Your task to perform on an android device: open app "WhatsApp Messenger" (install if not already installed) and go to login screen Image 0: 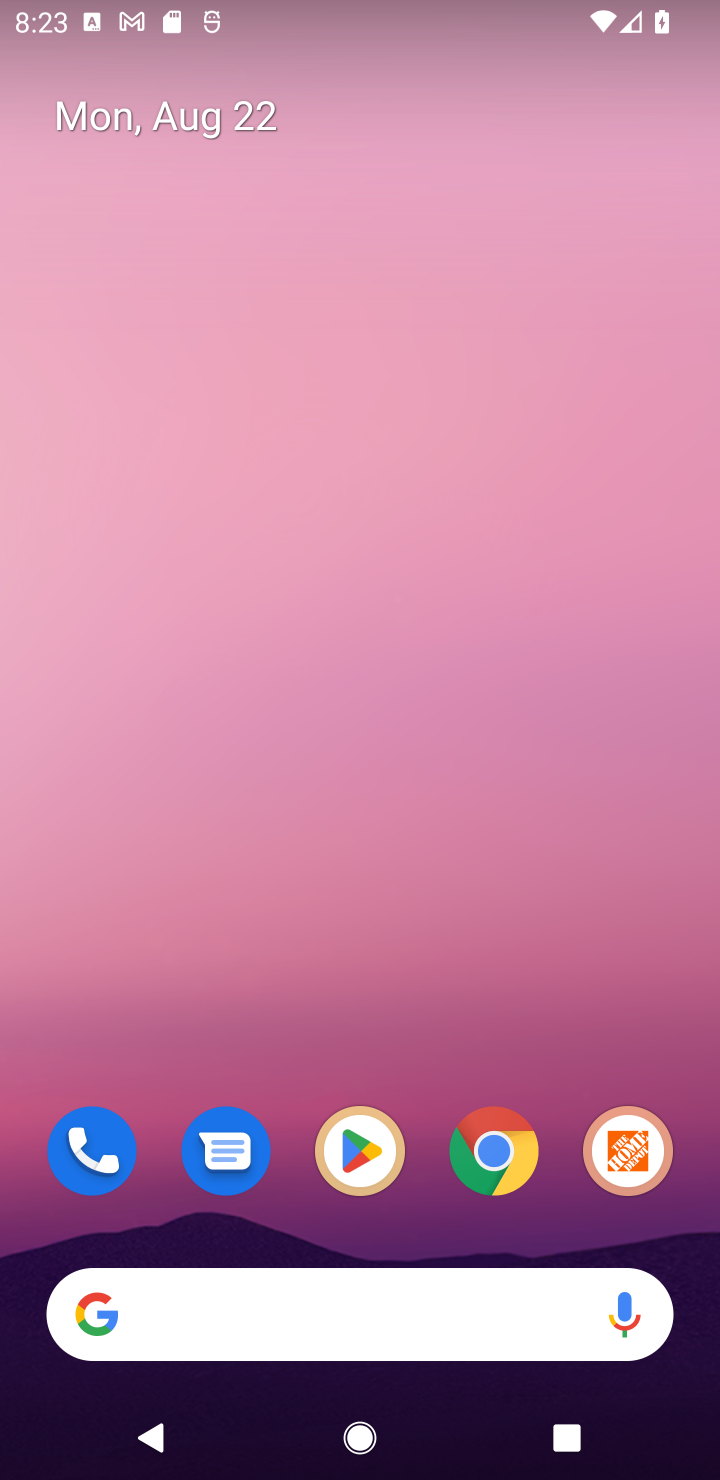
Step 0: click (366, 1161)
Your task to perform on an android device: open app "WhatsApp Messenger" (install if not already installed) and go to login screen Image 1: 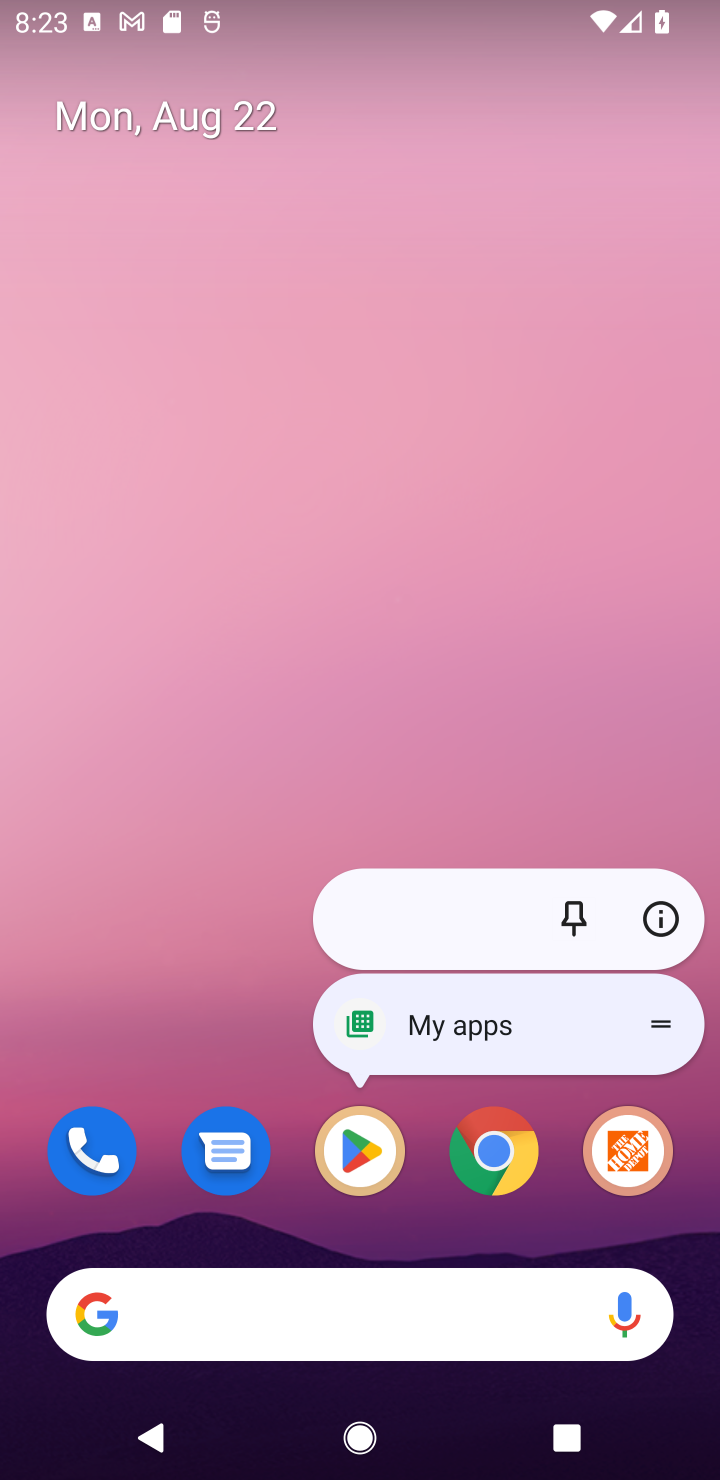
Step 1: click (370, 1157)
Your task to perform on an android device: open app "WhatsApp Messenger" (install if not already installed) and go to login screen Image 2: 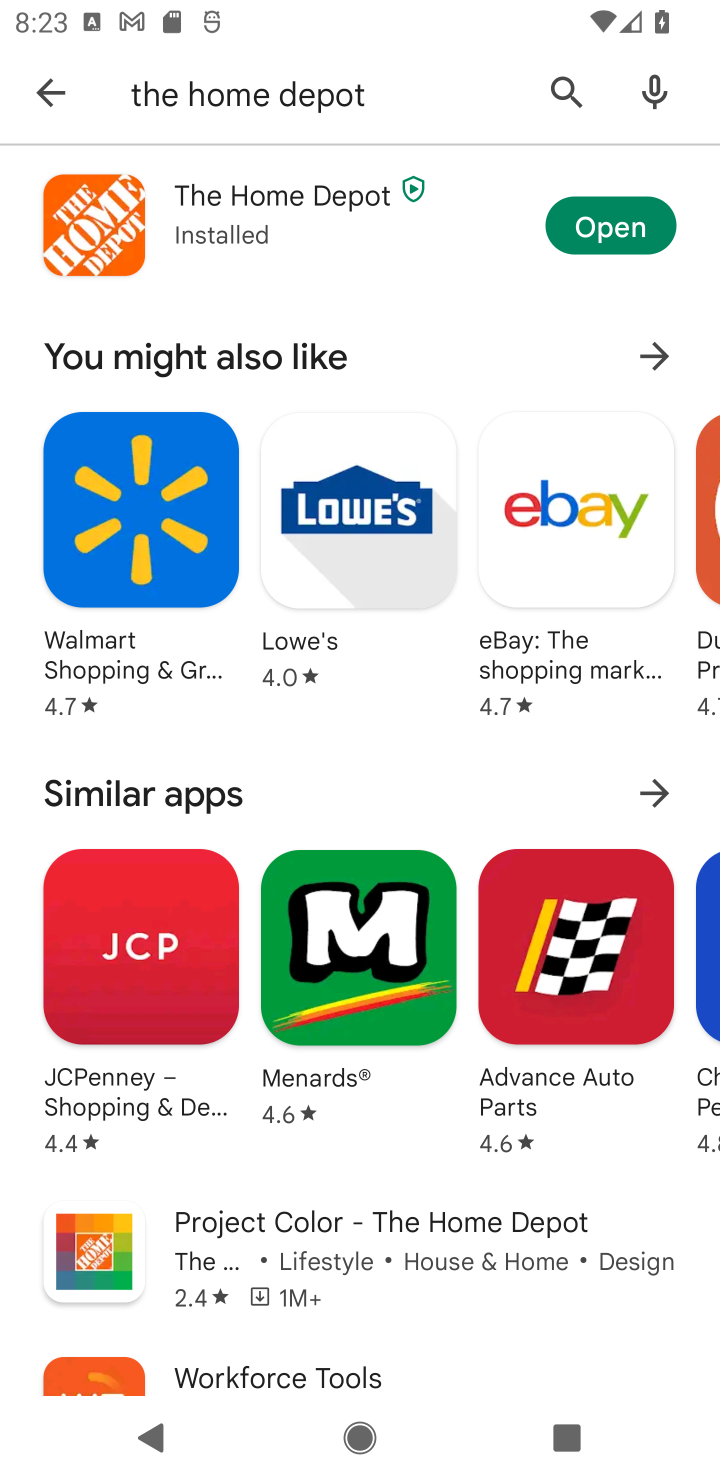
Step 2: click (551, 83)
Your task to perform on an android device: open app "WhatsApp Messenger" (install if not already installed) and go to login screen Image 3: 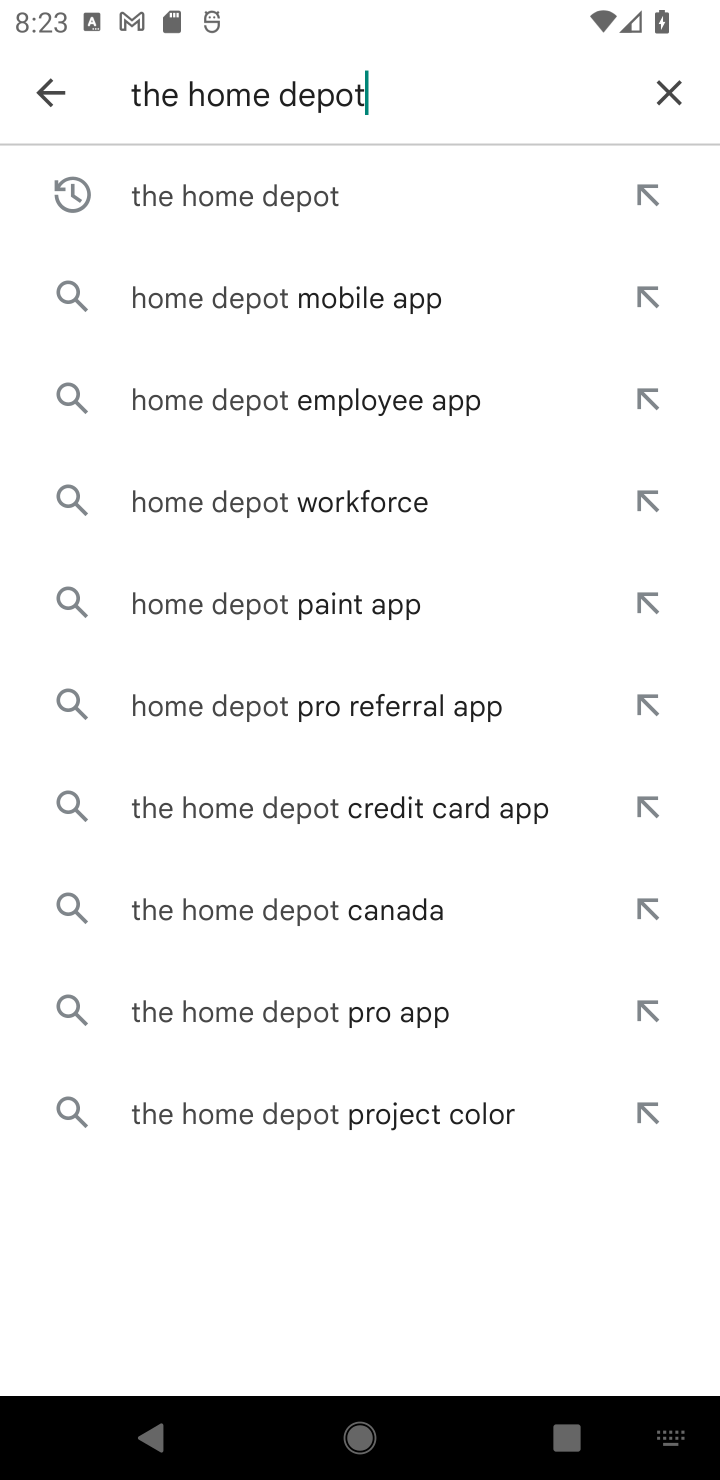
Step 3: click (659, 104)
Your task to perform on an android device: open app "WhatsApp Messenger" (install if not already installed) and go to login screen Image 4: 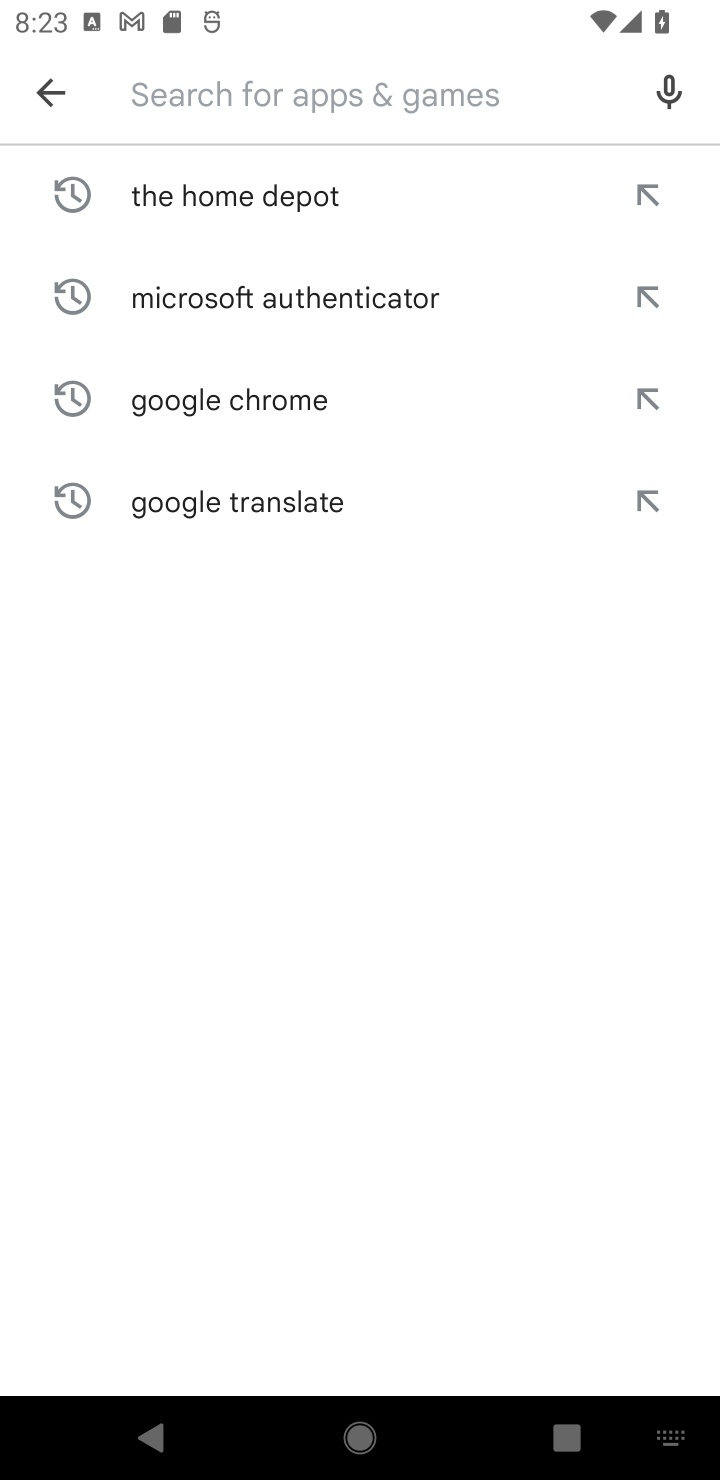
Step 4: type "WhatsApp Messenger"
Your task to perform on an android device: open app "WhatsApp Messenger" (install if not already installed) and go to login screen Image 5: 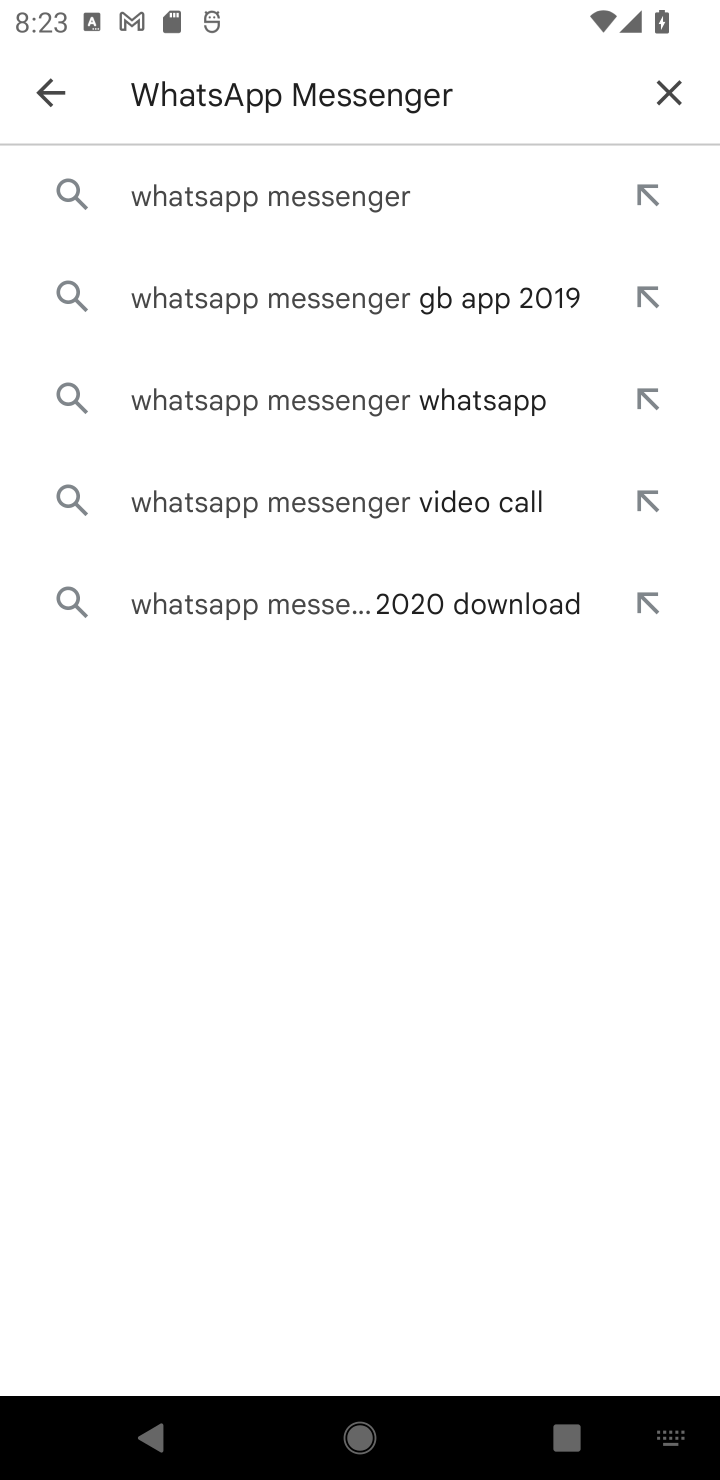
Step 5: click (318, 192)
Your task to perform on an android device: open app "WhatsApp Messenger" (install if not already installed) and go to login screen Image 6: 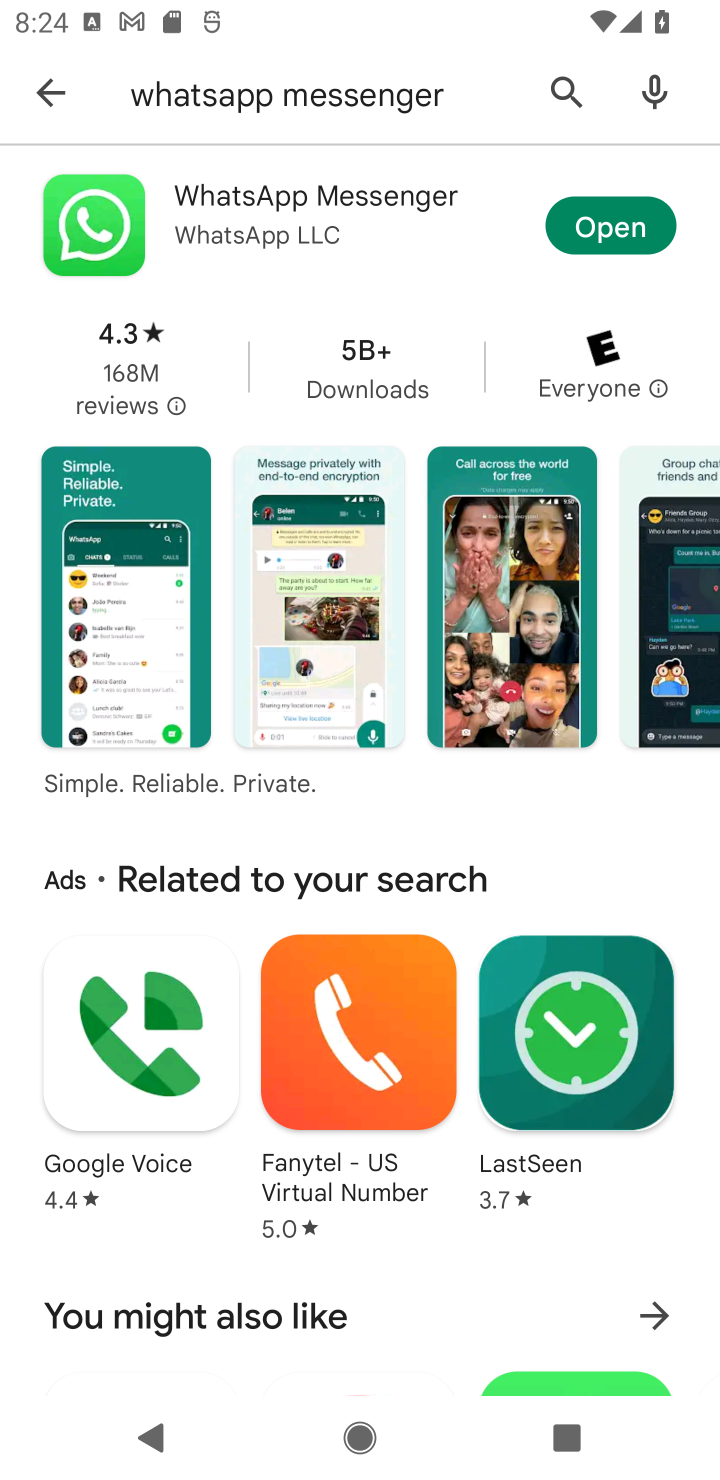
Step 6: click (610, 230)
Your task to perform on an android device: open app "WhatsApp Messenger" (install if not already installed) and go to login screen Image 7: 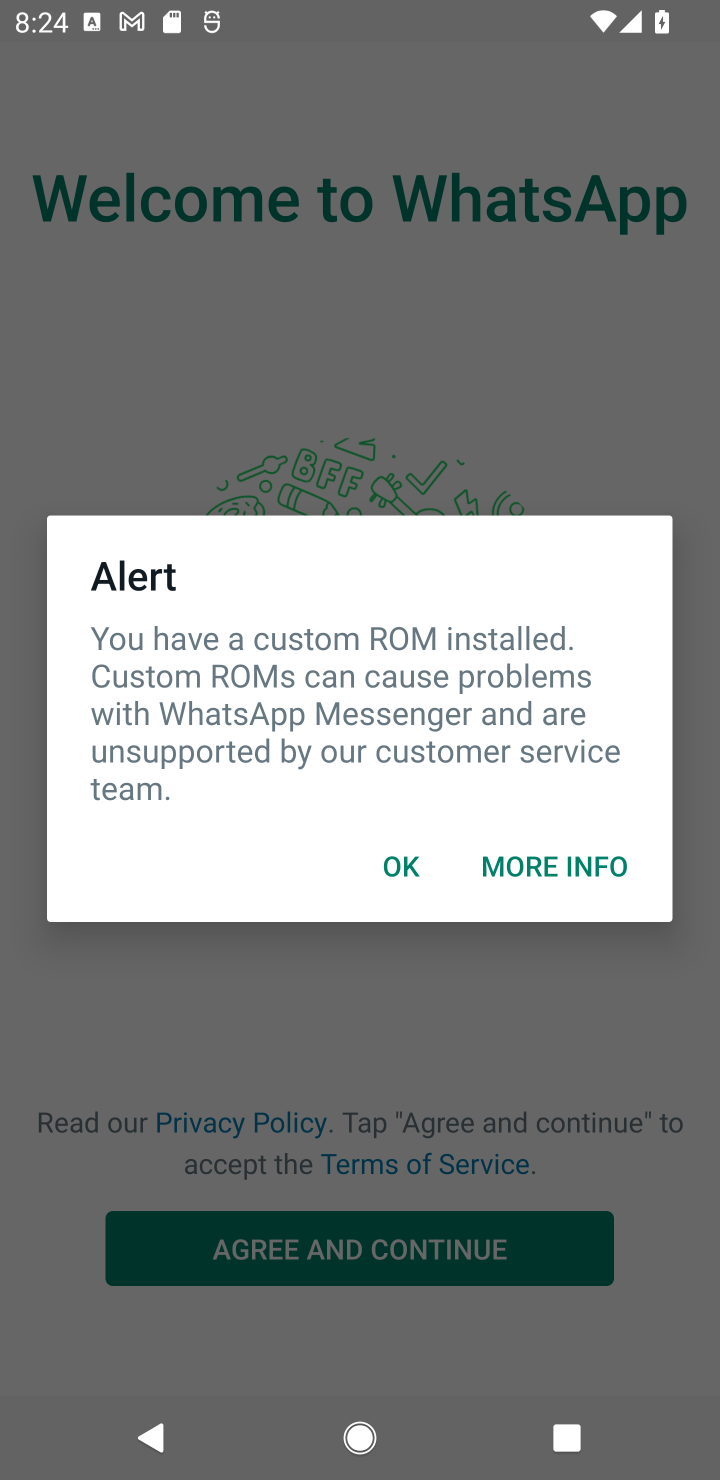
Step 7: click (403, 858)
Your task to perform on an android device: open app "WhatsApp Messenger" (install if not already installed) and go to login screen Image 8: 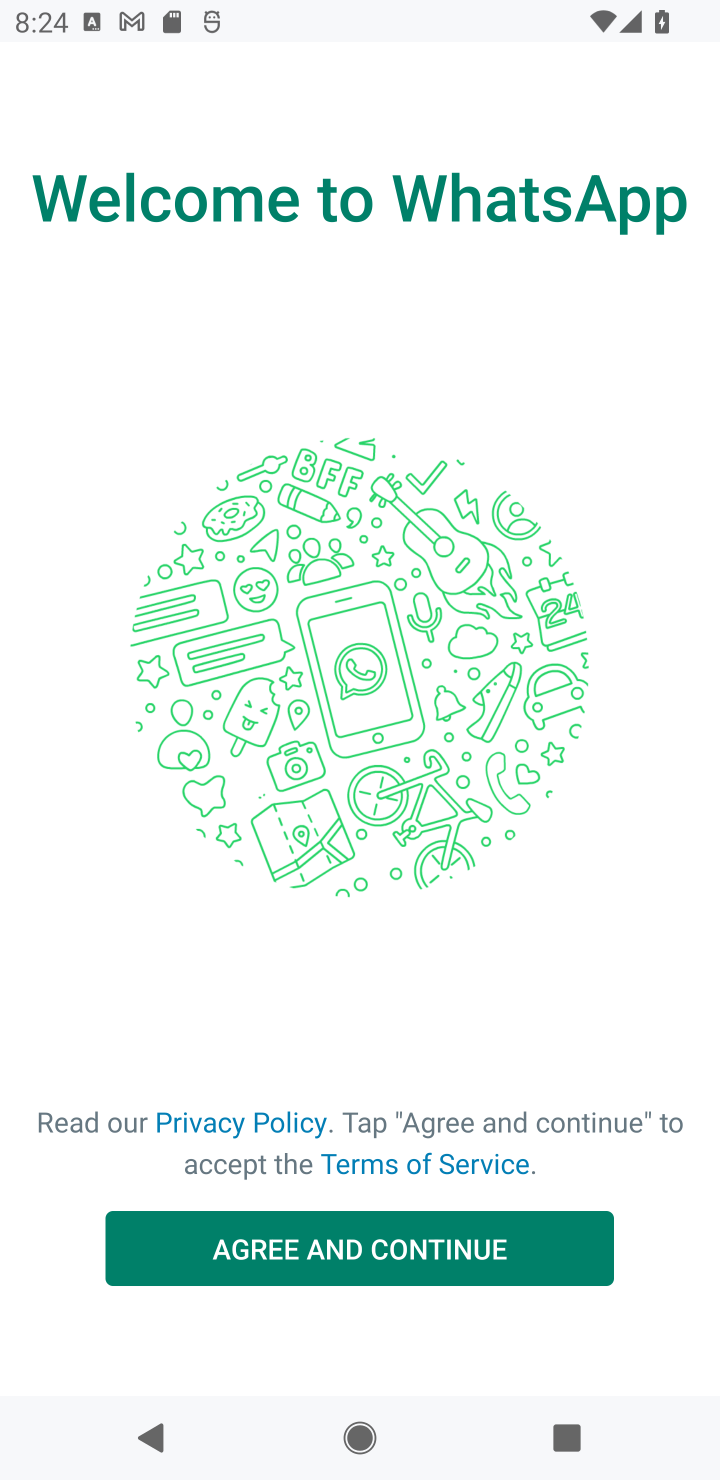
Step 8: click (499, 1252)
Your task to perform on an android device: open app "WhatsApp Messenger" (install if not already installed) and go to login screen Image 9: 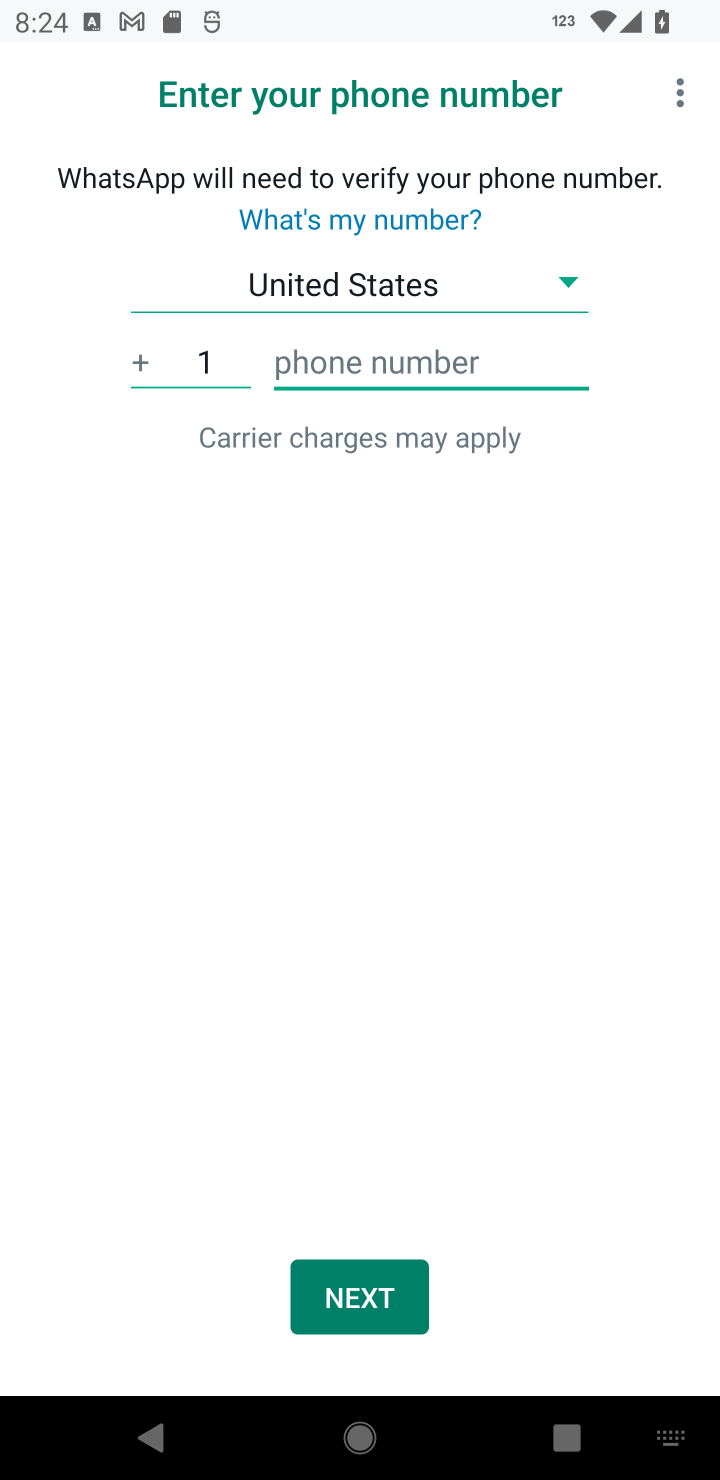
Step 9: task complete